Your task to perform on an android device: visit the assistant section in the google photos Image 0: 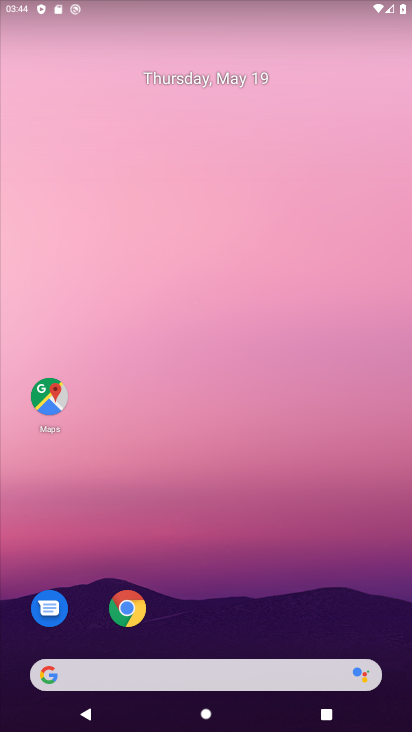
Step 0: drag from (265, 604) to (249, 162)
Your task to perform on an android device: visit the assistant section in the google photos Image 1: 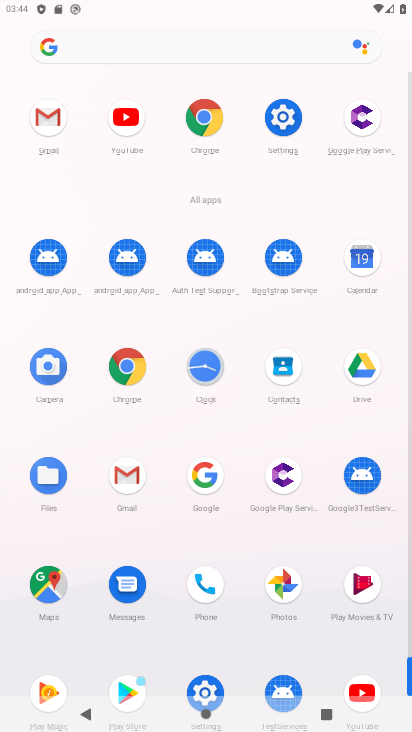
Step 1: click (285, 584)
Your task to perform on an android device: visit the assistant section in the google photos Image 2: 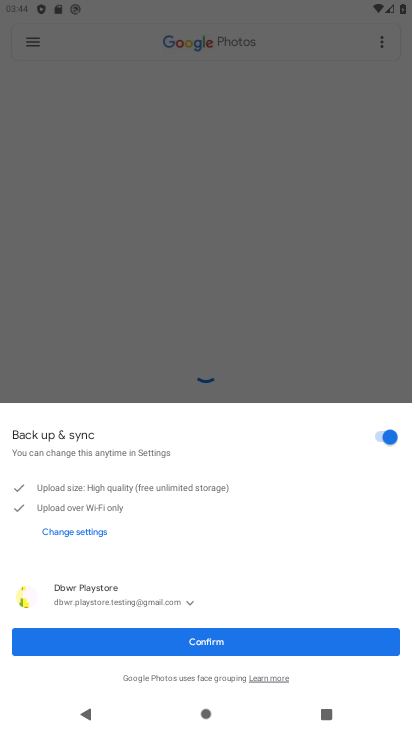
Step 2: click (224, 640)
Your task to perform on an android device: visit the assistant section in the google photos Image 3: 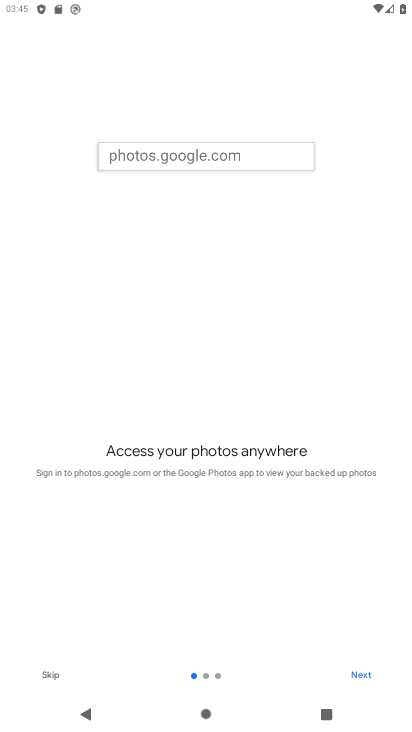
Step 3: click (360, 678)
Your task to perform on an android device: visit the assistant section in the google photos Image 4: 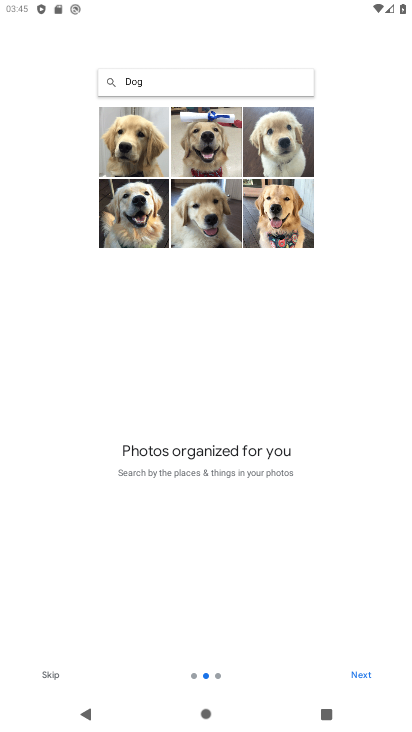
Step 4: click (360, 678)
Your task to perform on an android device: visit the assistant section in the google photos Image 5: 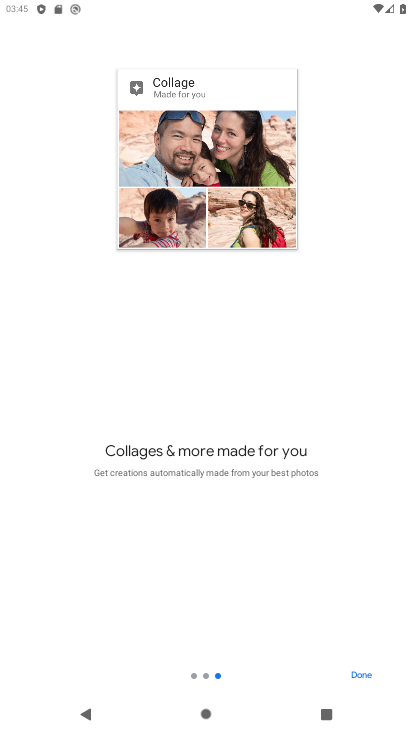
Step 5: click (364, 674)
Your task to perform on an android device: visit the assistant section in the google photos Image 6: 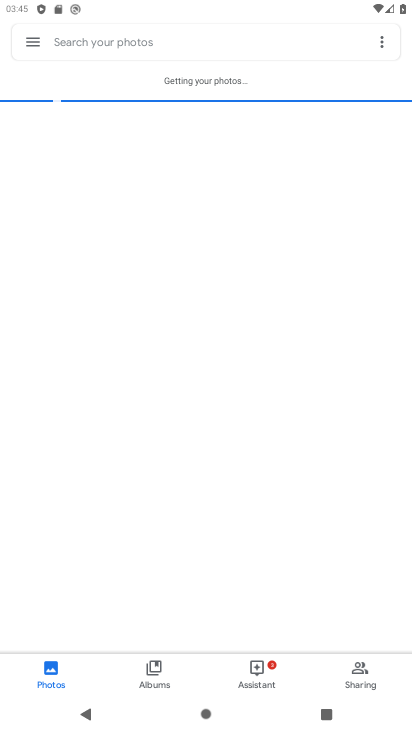
Step 6: click (252, 666)
Your task to perform on an android device: visit the assistant section in the google photos Image 7: 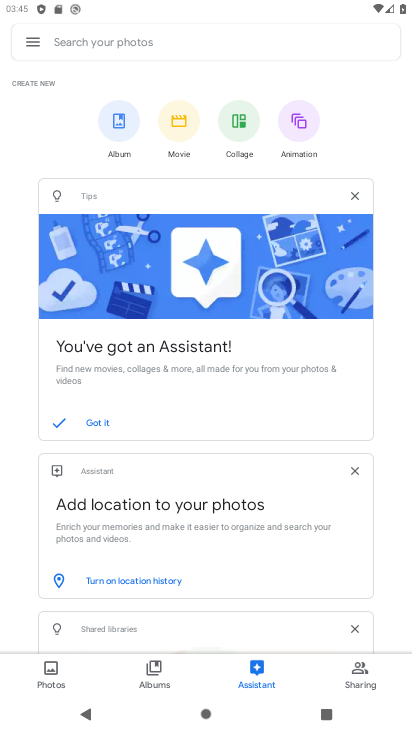
Step 7: task complete